Your task to perform on an android device: stop showing notifications on the lock screen Image 0: 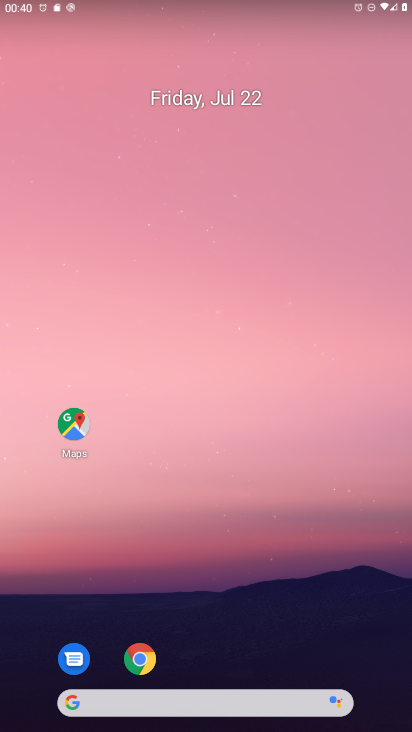
Step 0: drag from (197, 707) to (240, 10)
Your task to perform on an android device: stop showing notifications on the lock screen Image 1: 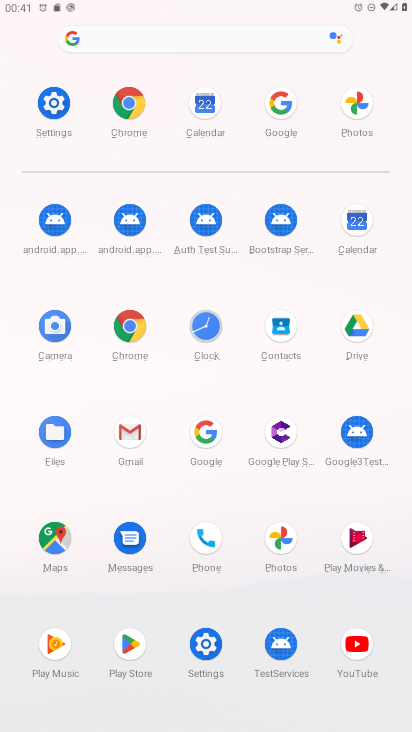
Step 1: click (53, 103)
Your task to perform on an android device: stop showing notifications on the lock screen Image 2: 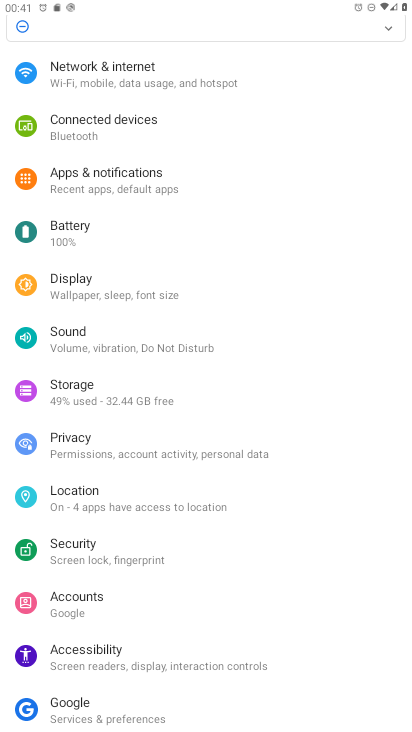
Step 2: click (75, 173)
Your task to perform on an android device: stop showing notifications on the lock screen Image 3: 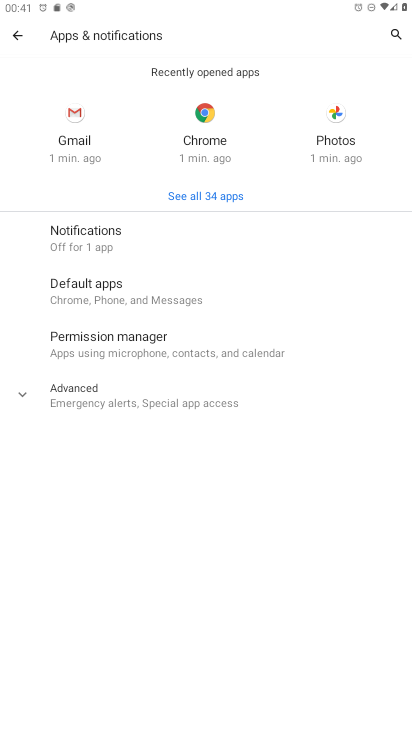
Step 3: click (84, 241)
Your task to perform on an android device: stop showing notifications on the lock screen Image 4: 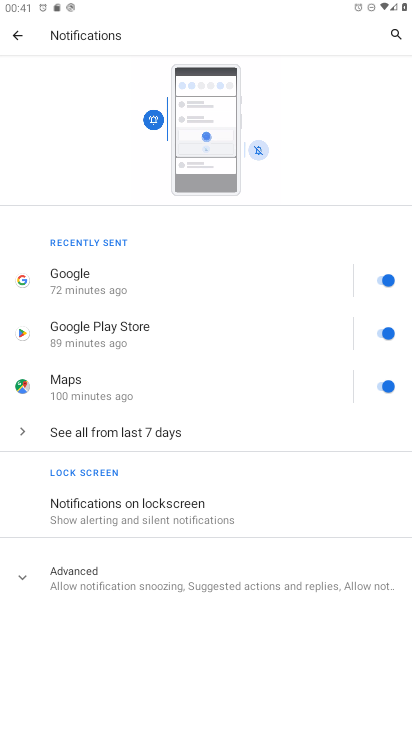
Step 4: click (120, 501)
Your task to perform on an android device: stop showing notifications on the lock screen Image 5: 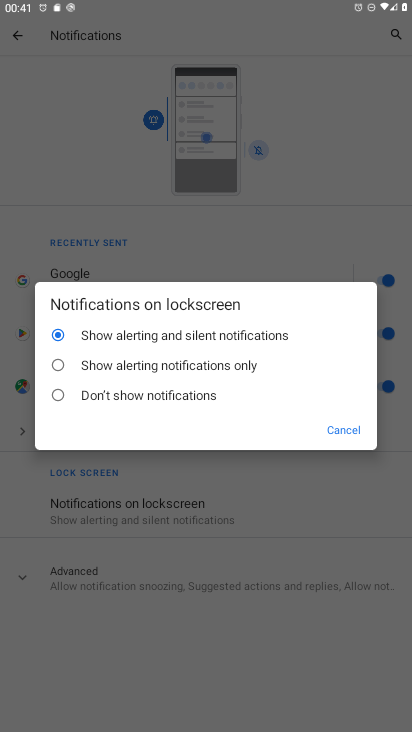
Step 5: click (54, 395)
Your task to perform on an android device: stop showing notifications on the lock screen Image 6: 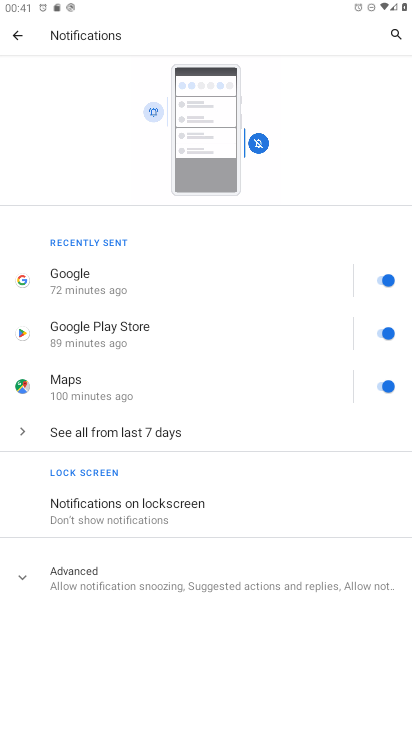
Step 6: task complete